Your task to perform on an android device: Turn off the flashlight Image 0: 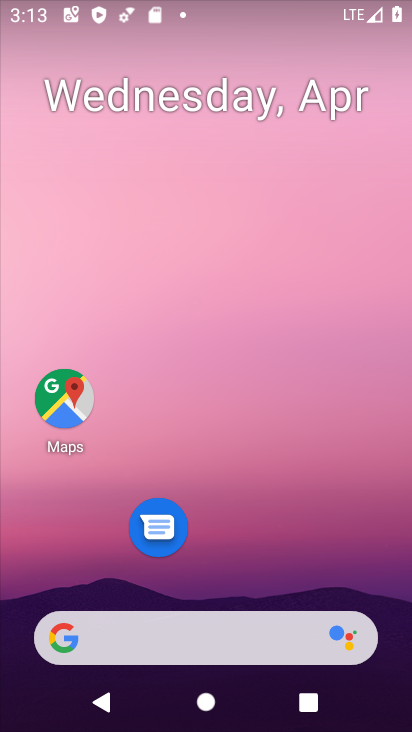
Step 0: task impossible